Your task to perform on an android device: search for starred emails in the gmail app Image 0: 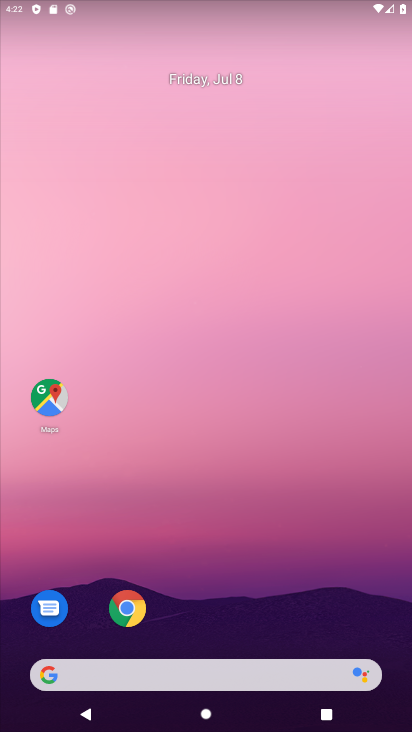
Step 0: drag from (271, 505) to (283, 442)
Your task to perform on an android device: search for starred emails in the gmail app Image 1: 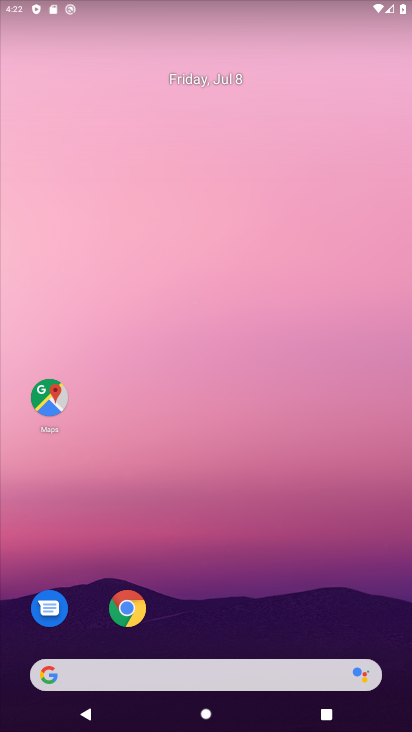
Step 1: drag from (187, 636) to (228, 372)
Your task to perform on an android device: search for starred emails in the gmail app Image 2: 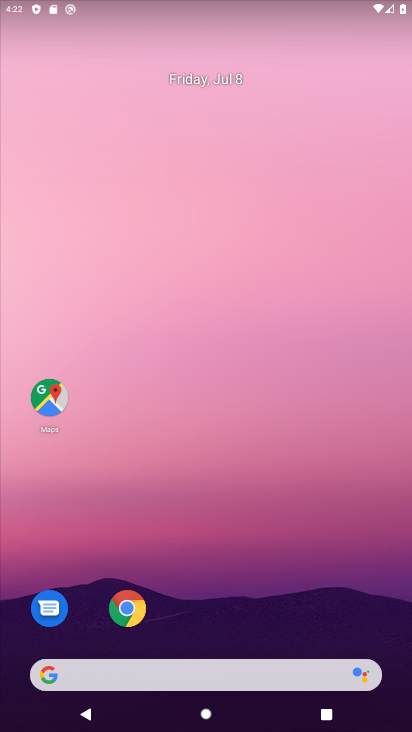
Step 2: drag from (204, 647) to (301, 181)
Your task to perform on an android device: search for starred emails in the gmail app Image 3: 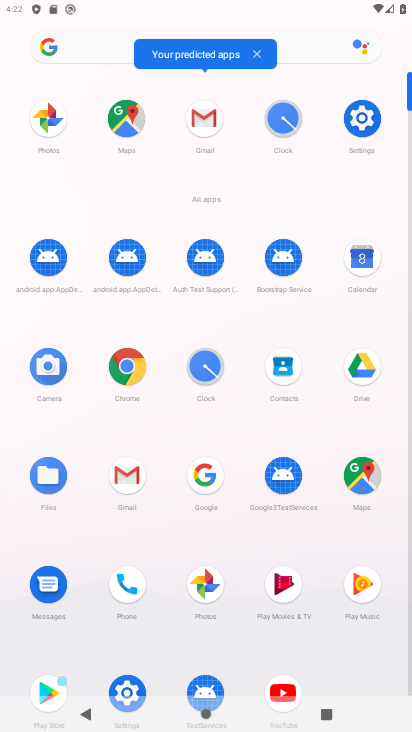
Step 3: click (130, 477)
Your task to perform on an android device: search for starred emails in the gmail app Image 4: 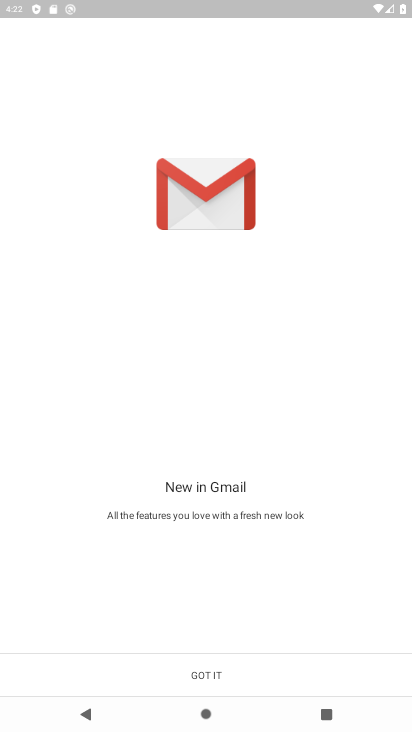
Step 4: click (198, 671)
Your task to perform on an android device: search for starred emails in the gmail app Image 5: 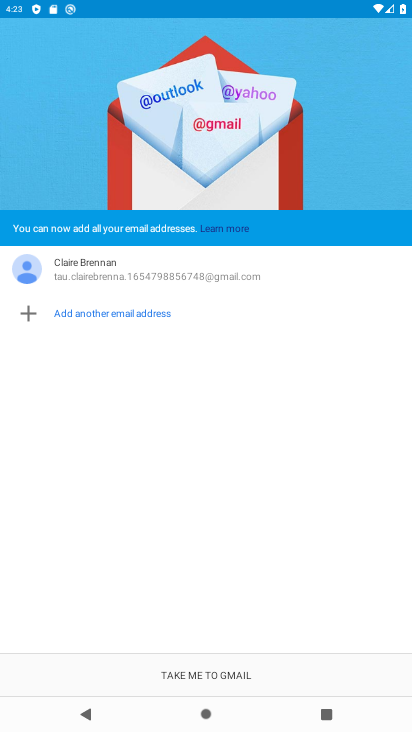
Step 5: click (198, 671)
Your task to perform on an android device: search for starred emails in the gmail app Image 6: 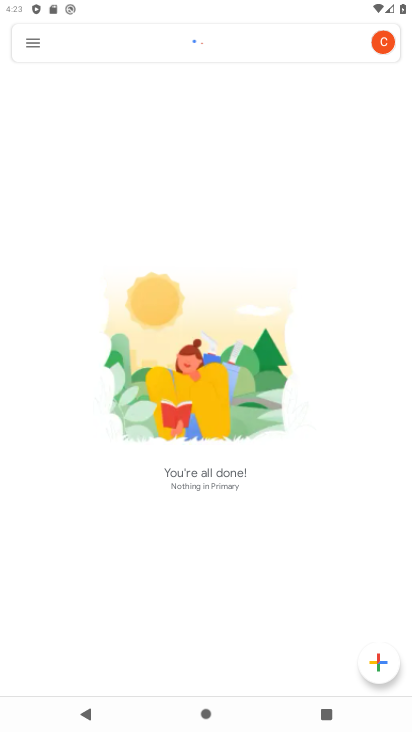
Step 6: click (35, 41)
Your task to perform on an android device: search for starred emails in the gmail app Image 7: 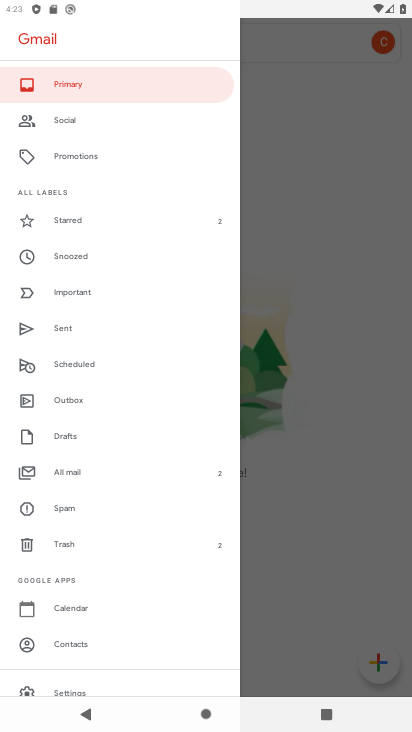
Step 7: click (103, 226)
Your task to perform on an android device: search for starred emails in the gmail app Image 8: 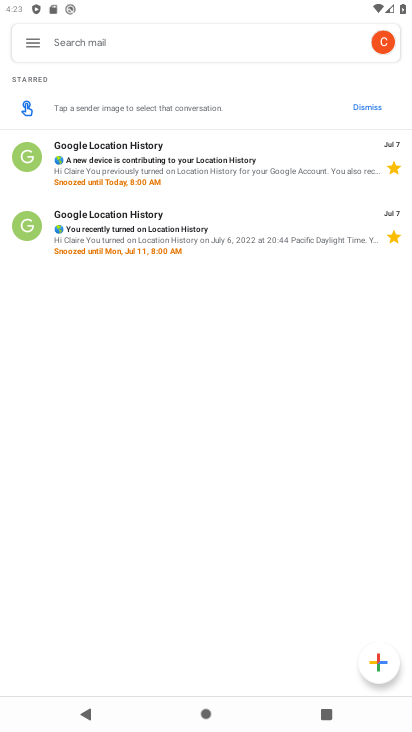
Step 8: task complete